Your task to perform on an android device: Search for the best value 4K TV on Best Buy Image 0: 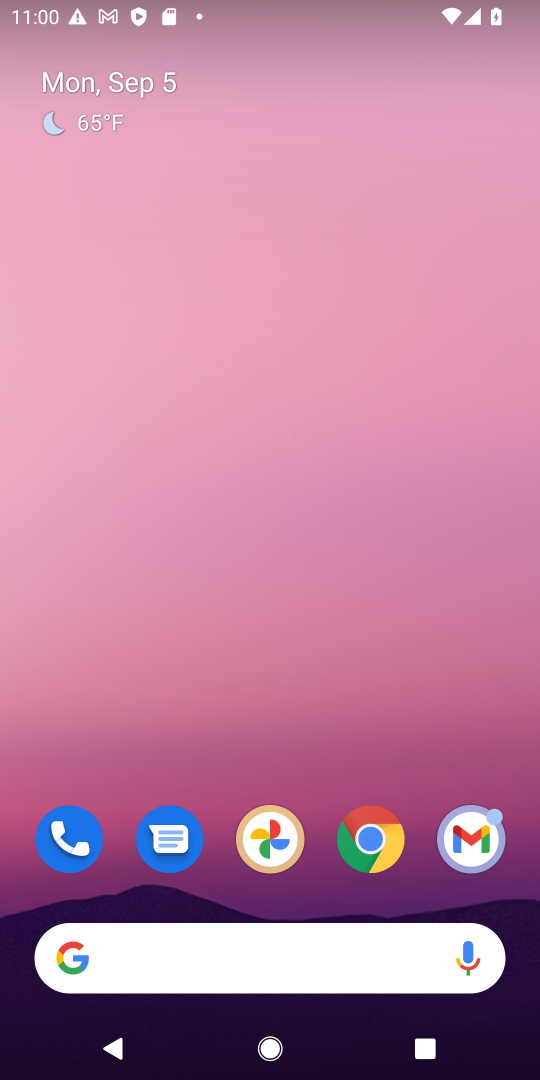
Step 0: drag from (238, 925) to (274, 304)
Your task to perform on an android device: Search for the best value 4K TV on Best Buy Image 1: 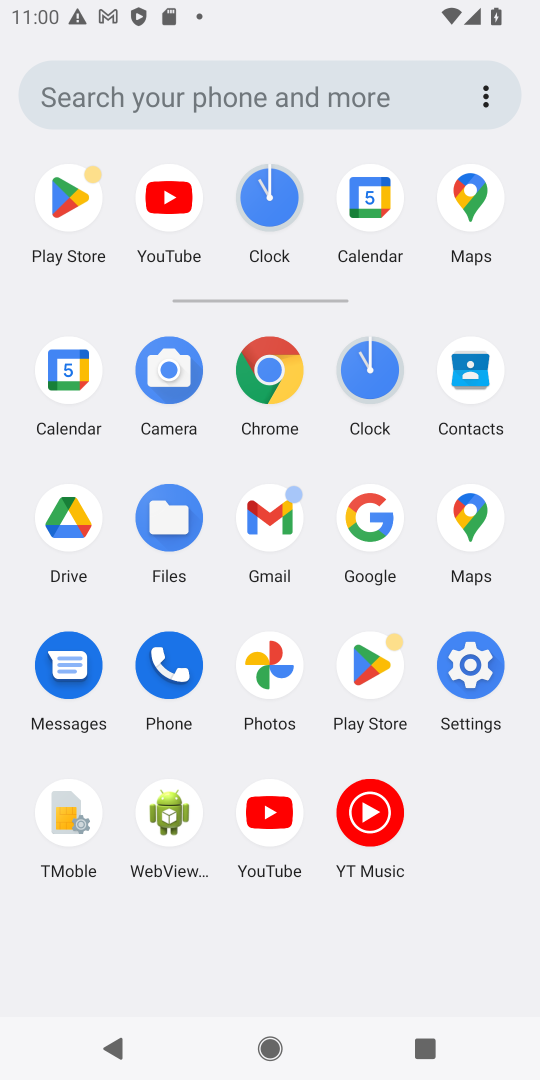
Step 1: click (382, 524)
Your task to perform on an android device: Search for the best value 4K TV on Best Buy Image 2: 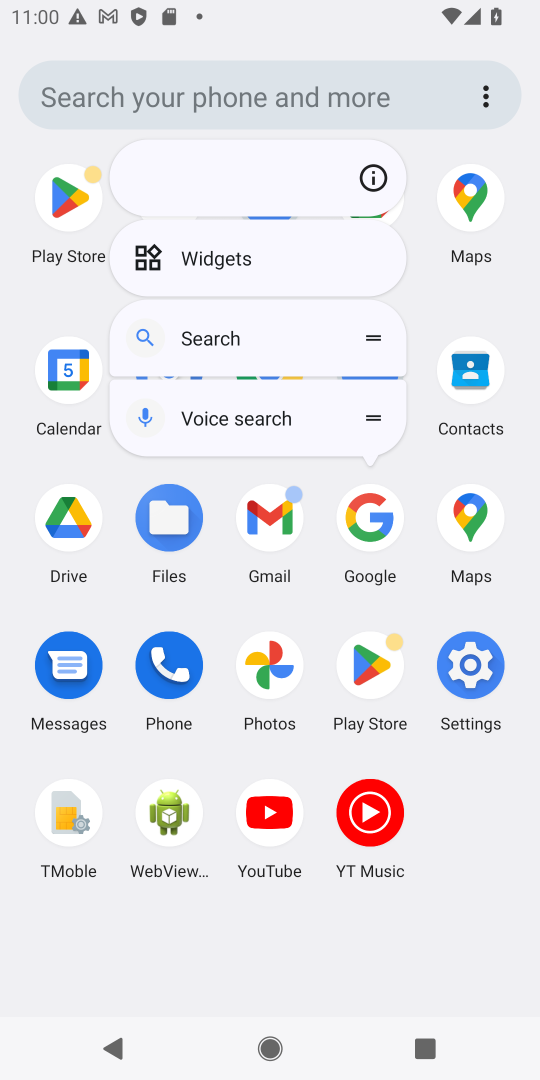
Step 2: click (379, 526)
Your task to perform on an android device: Search for the best value 4K TV on Best Buy Image 3: 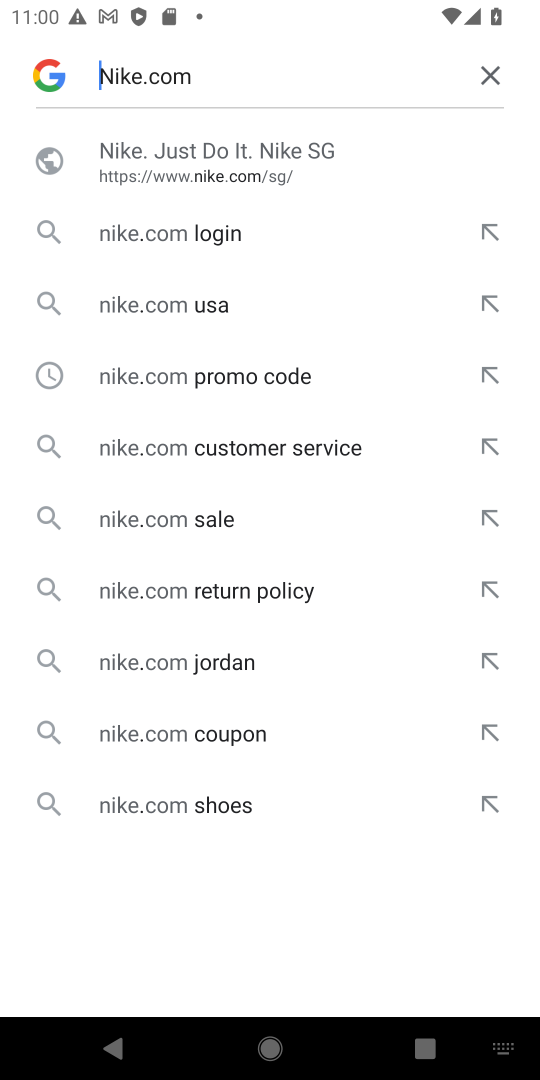
Step 3: click (219, 82)
Your task to perform on an android device: Search for the best value 4K TV on Best Buy Image 4: 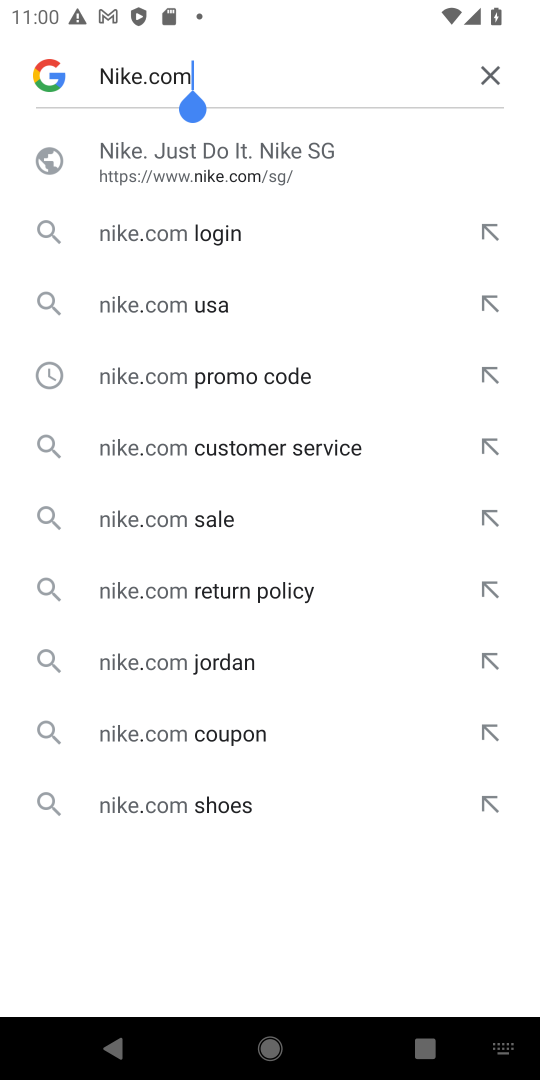
Step 4: click (490, 76)
Your task to perform on an android device: Search for the best value 4K TV on Best Buy Image 5: 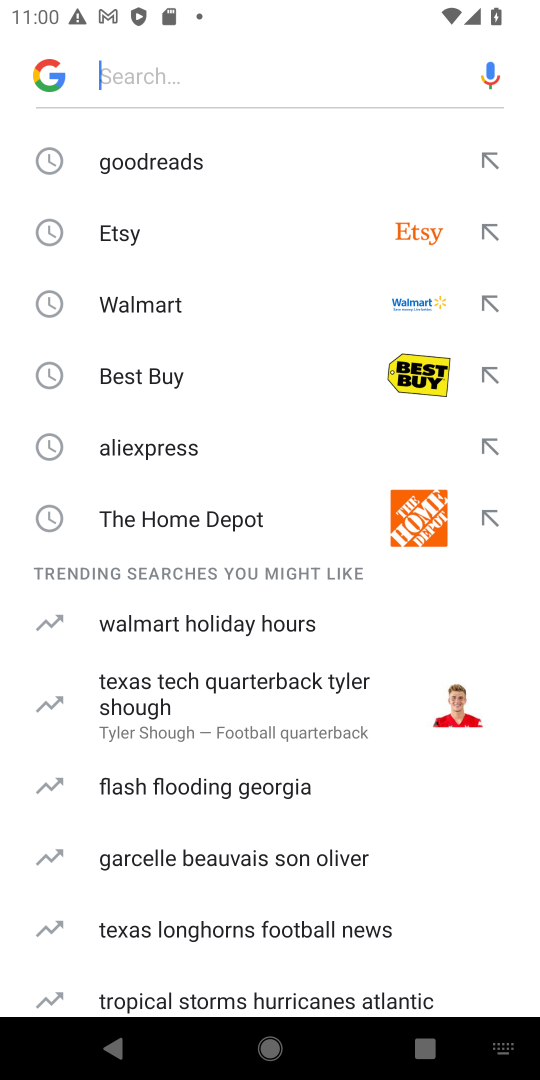
Step 5: type "Best Buy"
Your task to perform on an android device: Search for the best value 4K TV on Best Buy Image 6: 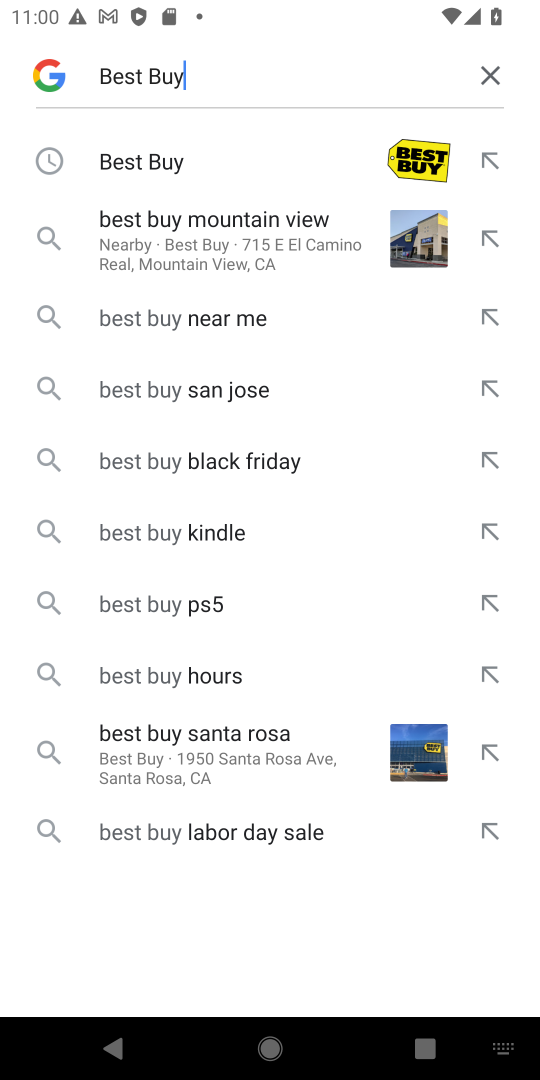
Step 6: click (429, 154)
Your task to perform on an android device: Search for the best value 4K TV on Best Buy Image 7: 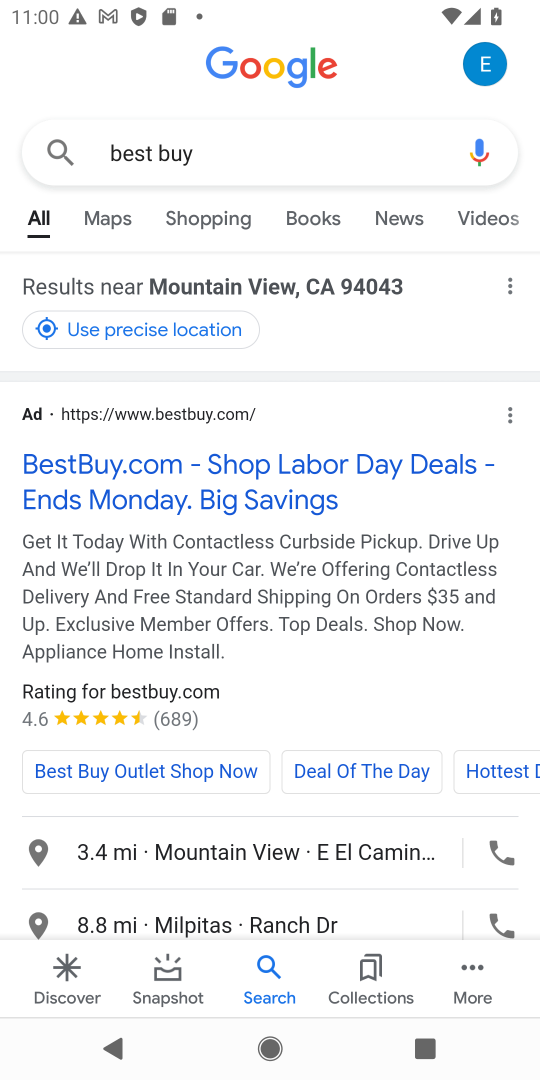
Step 7: click (204, 465)
Your task to perform on an android device: Search for the best value 4K TV on Best Buy Image 8: 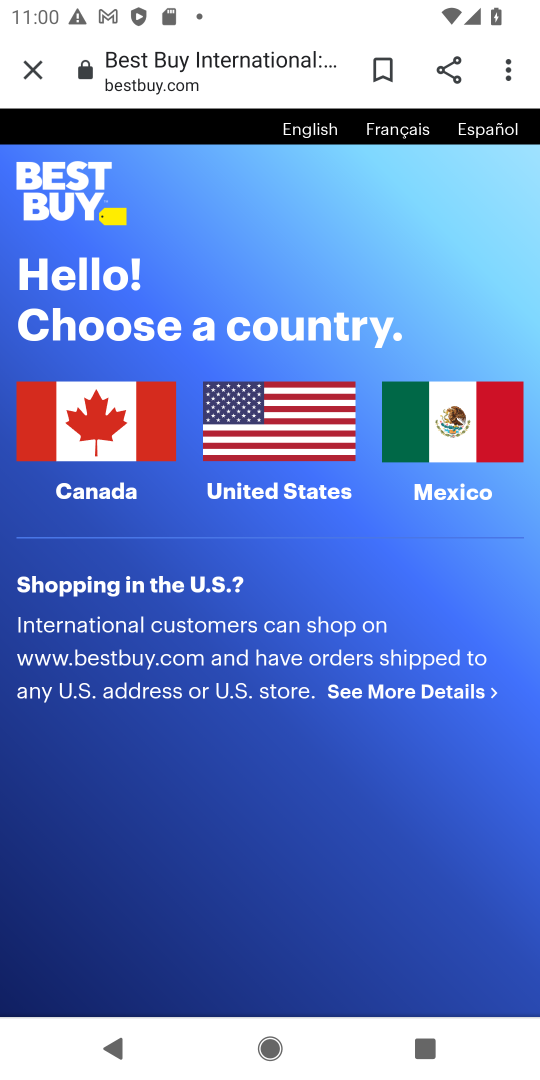
Step 8: task complete